Your task to perform on an android device: move a message to another label in the gmail app Image 0: 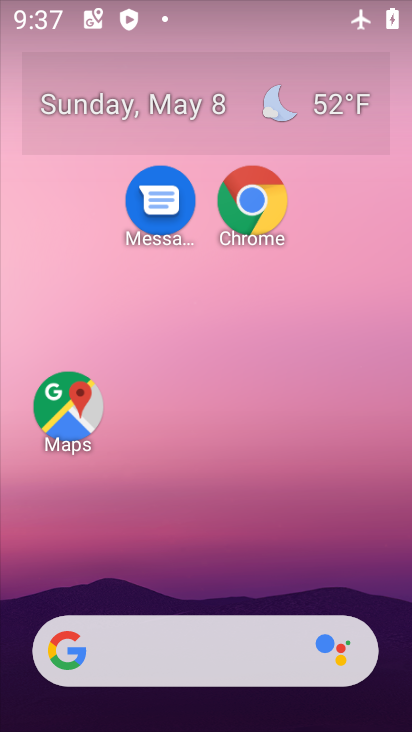
Step 0: drag from (221, 607) to (390, 659)
Your task to perform on an android device: move a message to another label in the gmail app Image 1: 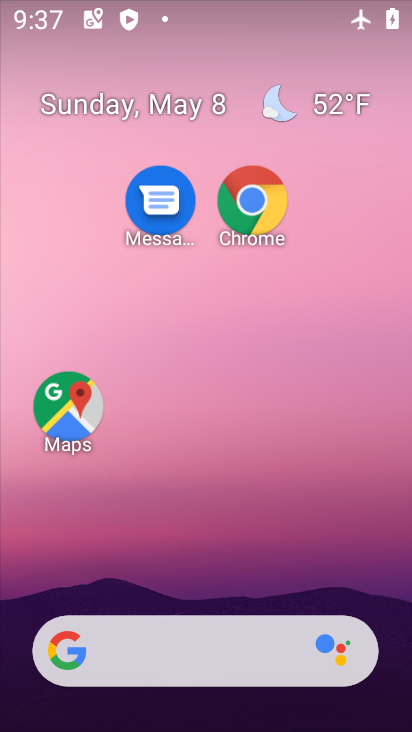
Step 1: click (358, 475)
Your task to perform on an android device: move a message to another label in the gmail app Image 2: 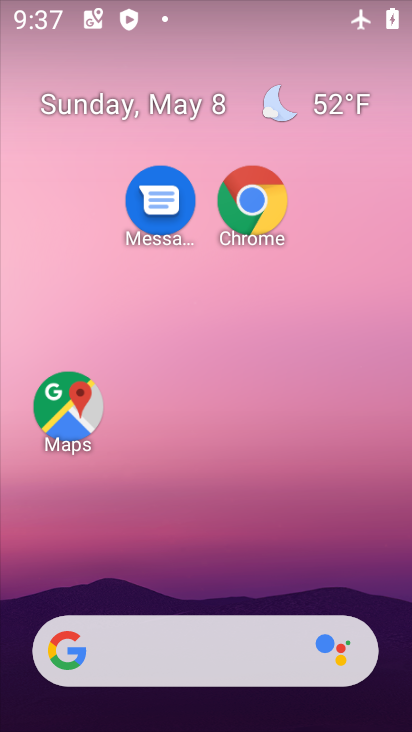
Step 2: drag from (263, 558) to (337, 5)
Your task to perform on an android device: move a message to another label in the gmail app Image 3: 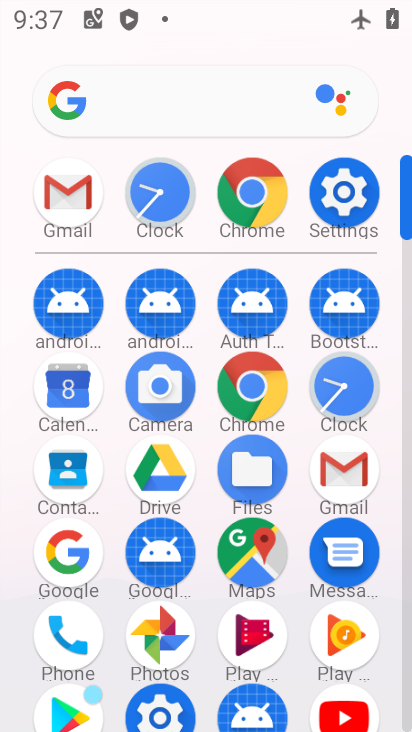
Step 3: click (354, 478)
Your task to perform on an android device: move a message to another label in the gmail app Image 4: 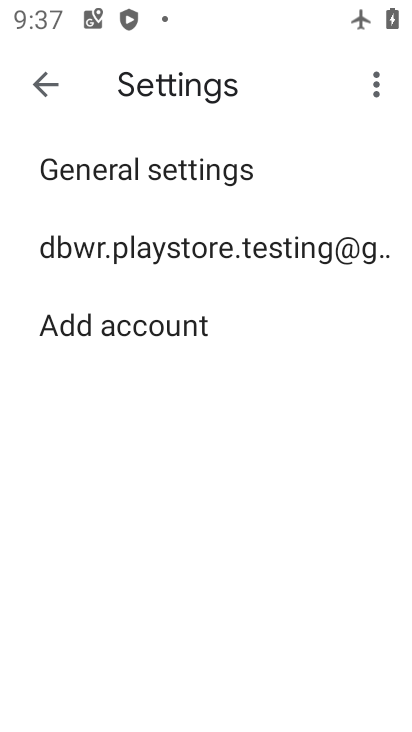
Step 4: click (46, 95)
Your task to perform on an android device: move a message to another label in the gmail app Image 5: 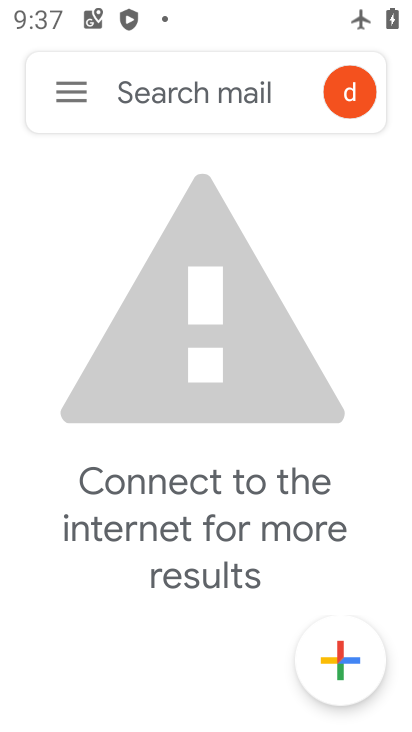
Step 5: task complete